Your task to perform on an android device: turn off notifications in google photos Image 0: 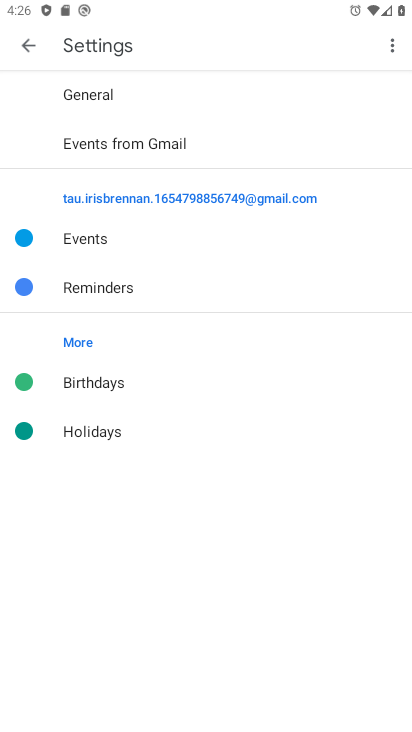
Step 0: press home button
Your task to perform on an android device: turn off notifications in google photos Image 1: 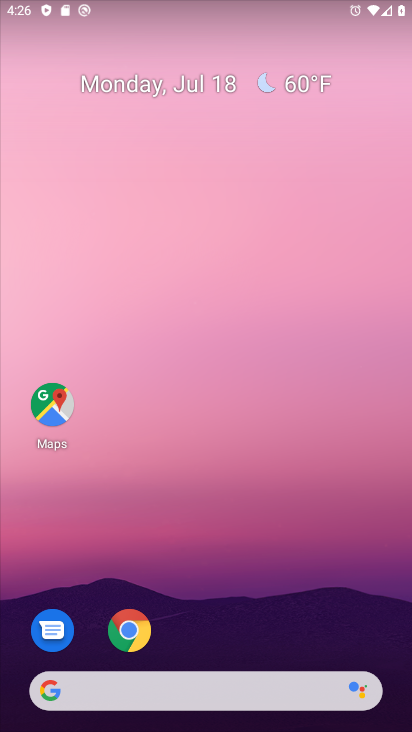
Step 1: drag from (277, 560) to (215, 125)
Your task to perform on an android device: turn off notifications in google photos Image 2: 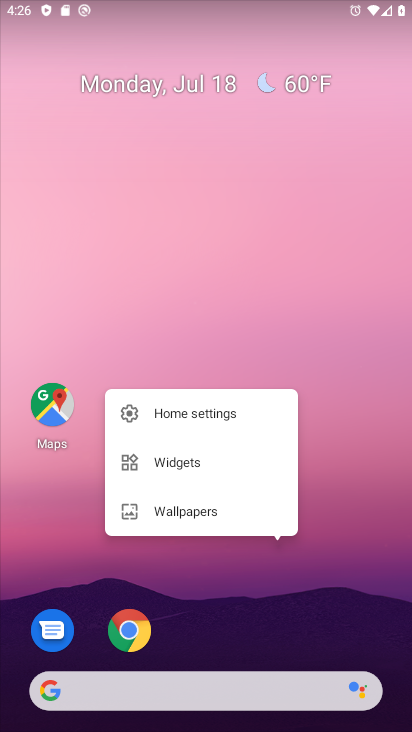
Step 2: click (348, 386)
Your task to perform on an android device: turn off notifications in google photos Image 3: 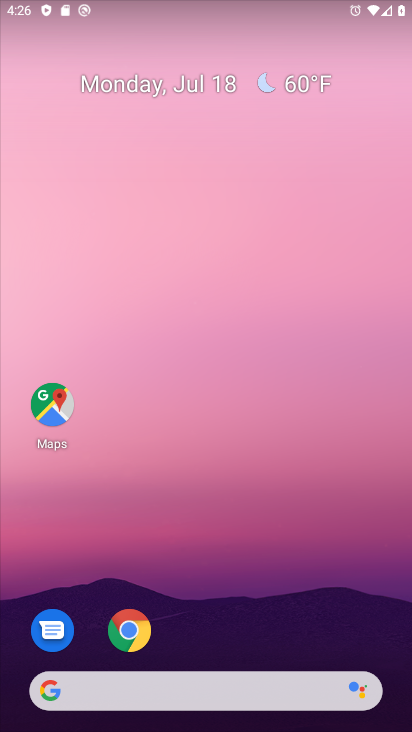
Step 3: click (348, 386)
Your task to perform on an android device: turn off notifications in google photos Image 4: 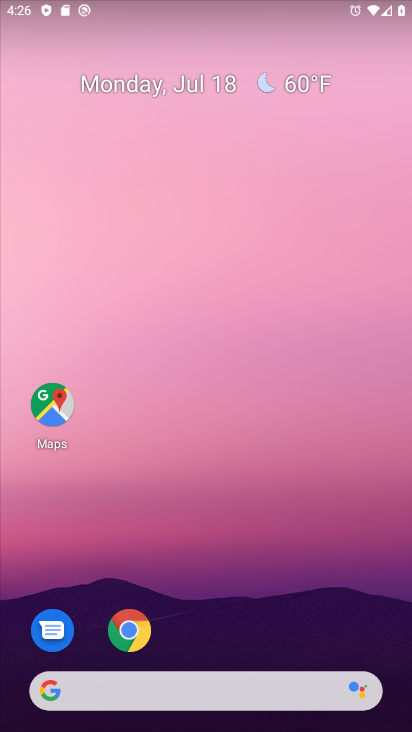
Step 4: drag from (187, 612) to (175, 13)
Your task to perform on an android device: turn off notifications in google photos Image 5: 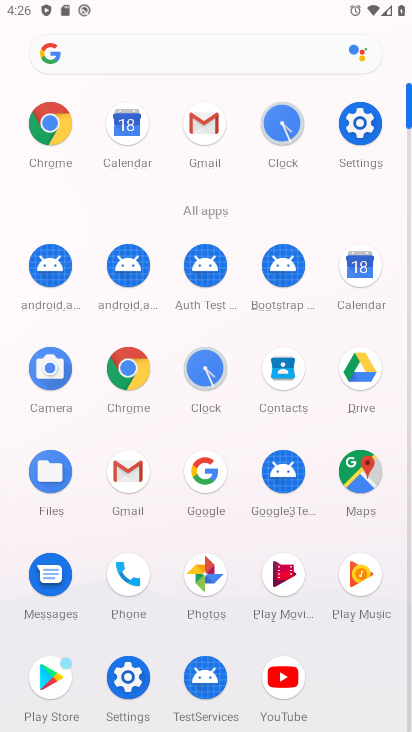
Step 5: click (211, 574)
Your task to perform on an android device: turn off notifications in google photos Image 6: 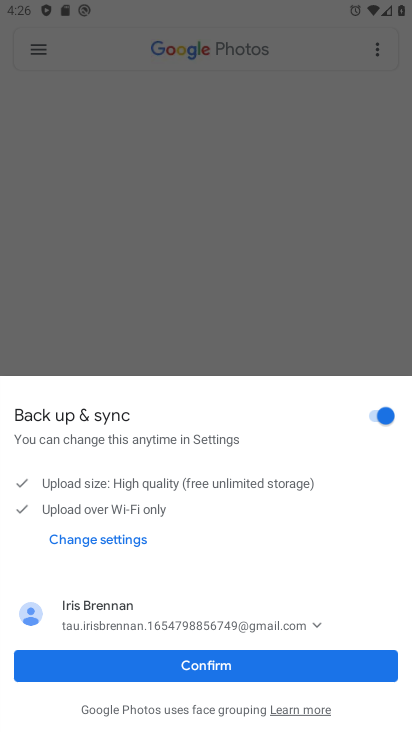
Step 6: click (197, 667)
Your task to perform on an android device: turn off notifications in google photos Image 7: 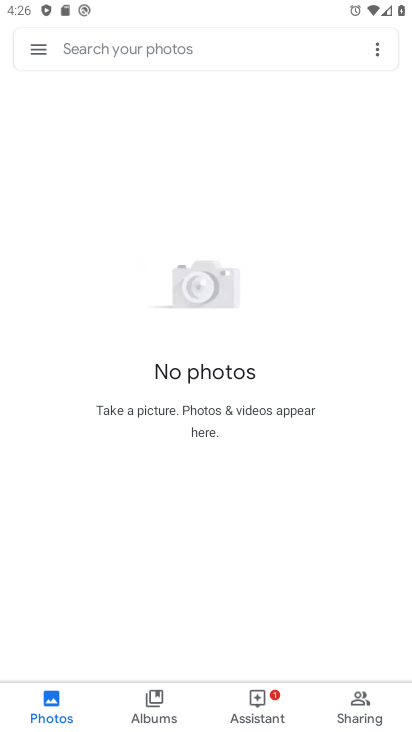
Step 7: click (34, 49)
Your task to perform on an android device: turn off notifications in google photos Image 8: 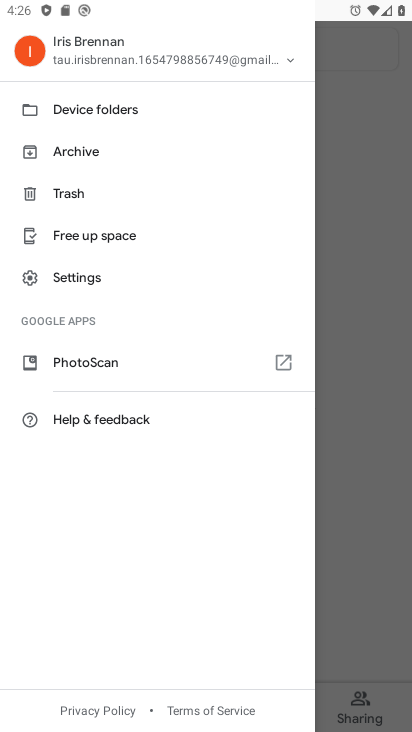
Step 8: click (84, 269)
Your task to perform on an android device: turn off notifications in google photos Image 9: 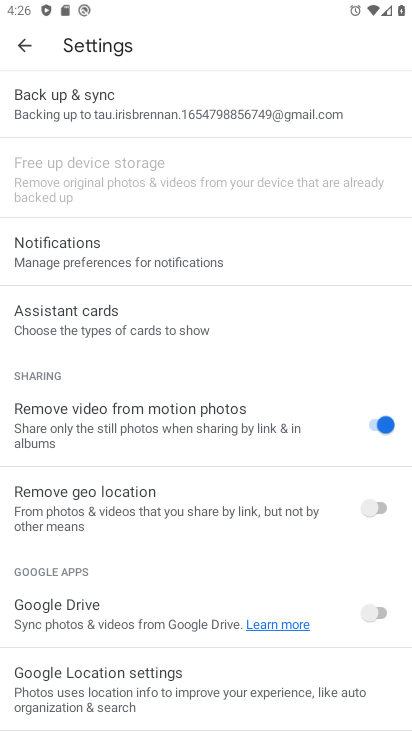
Step 9: click (69, 247)
Your task to perform on an android device: turn off notifications in google photos Image 10: 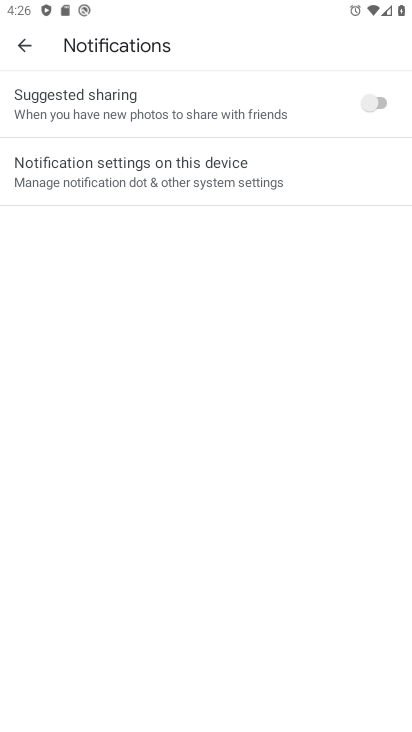
Step 10: click (248, 167)
Your task to perform on an android device: turn off notifications in google photos Image 11: 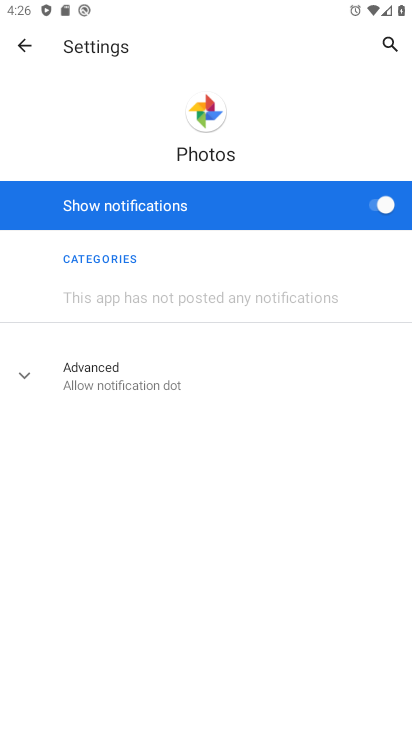
Step 11: click (386, 206)
Your task to perform on an android device: turn off notifications in google photos Image 12: 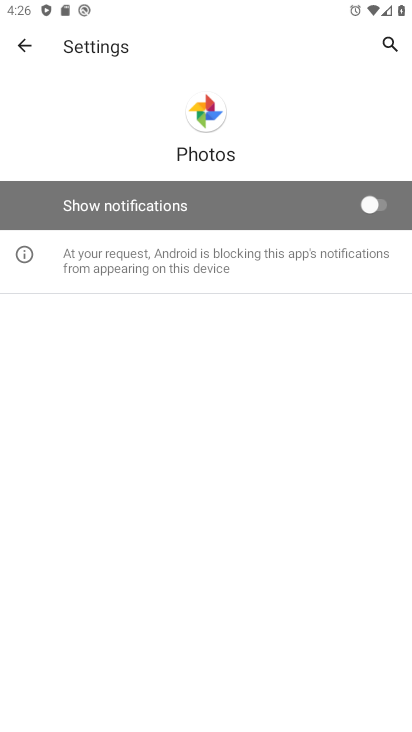
Step 12: task complete